Your task to perform on an android device: Search for Mexican restaurants on Maps Image 0: 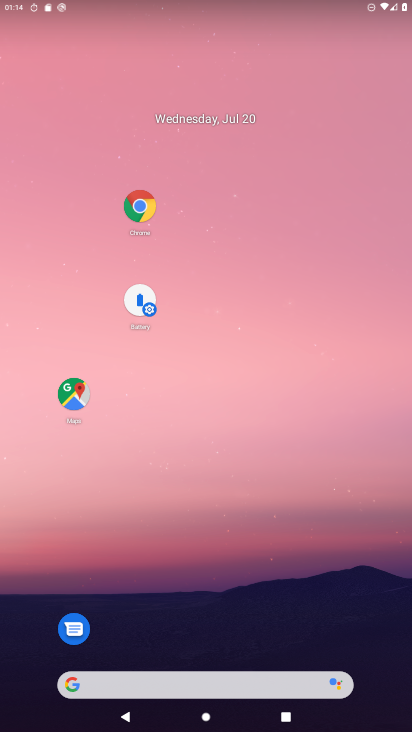
Step 0: drag from (176, 628) to (183, 312)
Your task to perform on an android device: Search for Mexican restaurants on Maps Image 1: 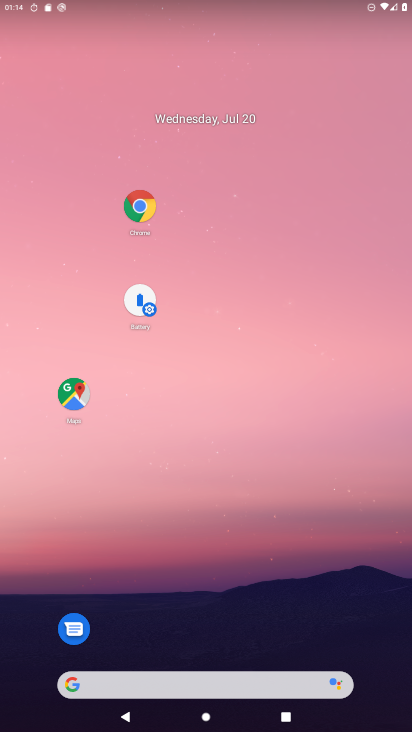
Step 1: drag from (181, 635) to (234, 255)
Your task to perform on an android device: Search for Mexican restaurants on Maps Image 2: 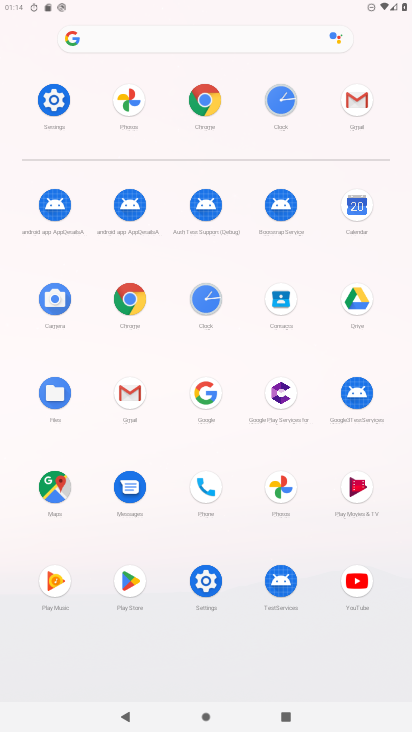
Step 2: click (41, 499)
Your task to perform on an android device: Search for Mexican restaurants on Maps Image 3: 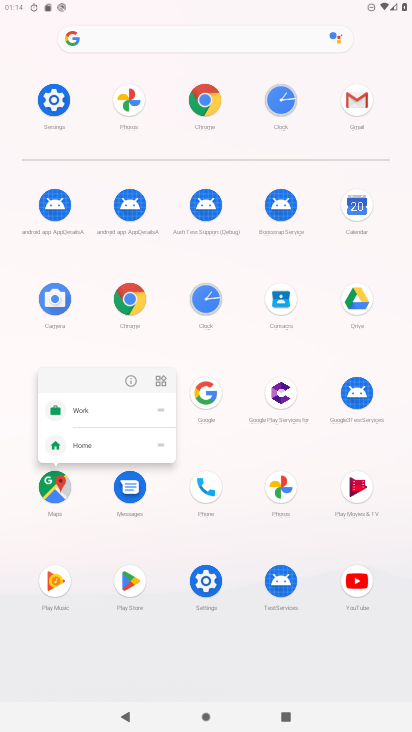
Step 3: click (129, 381)
Your task to perform on an android device: Search for Mexican restaurants on Maps Image 4: 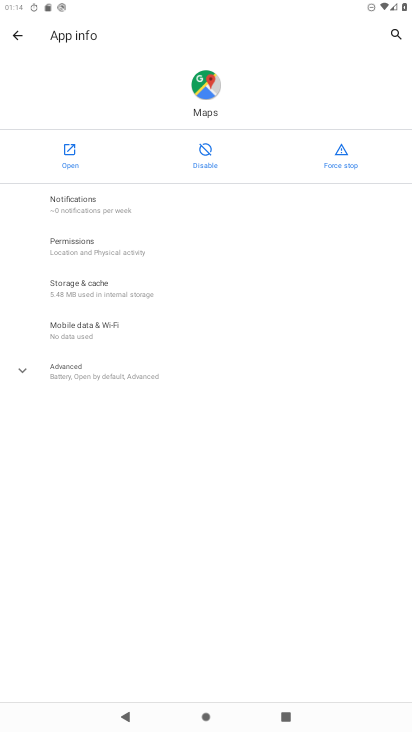
Step 4: click (72, 151)
Your task to perform on an android device: Search for Mexican restaurants on Maps Image 5: 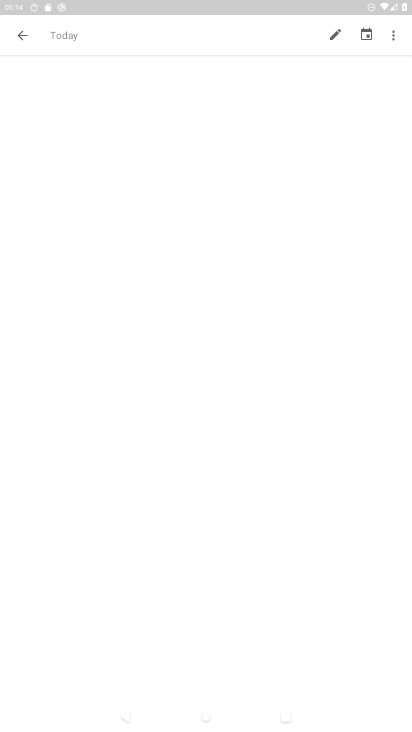
Step 5: click (19, 28)
Your task to perform on an android device: Search for Mexican restaurants on Maps Image 6: 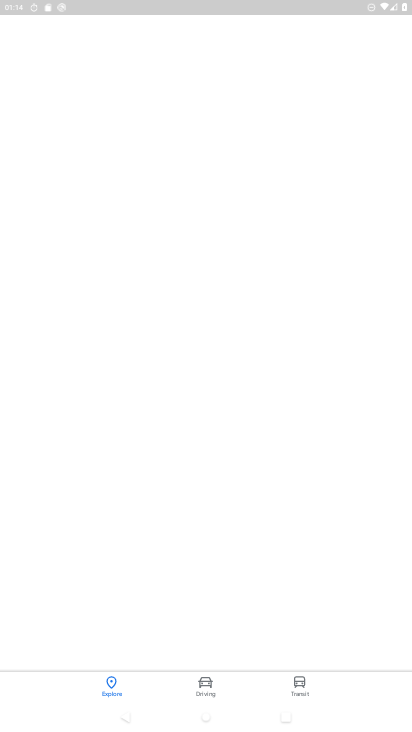
Step 6: press home button
Your task to perform on an android device: Search for Mexican restaurants on Maps Image 7: 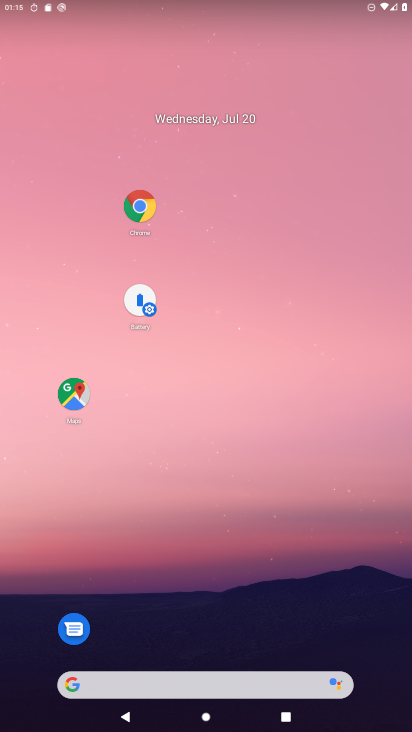
Step 7: click (78, 391)
Your task to perform on an android device: Search for Mexican restaurants on Maps Image 8: 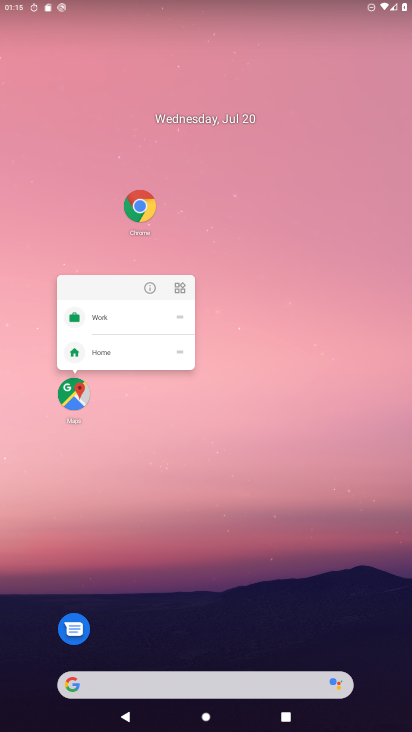
Step 8: click (143, 284)
Your task to perform on an android device: Search for Mexican restaurants on Maps Image 9: 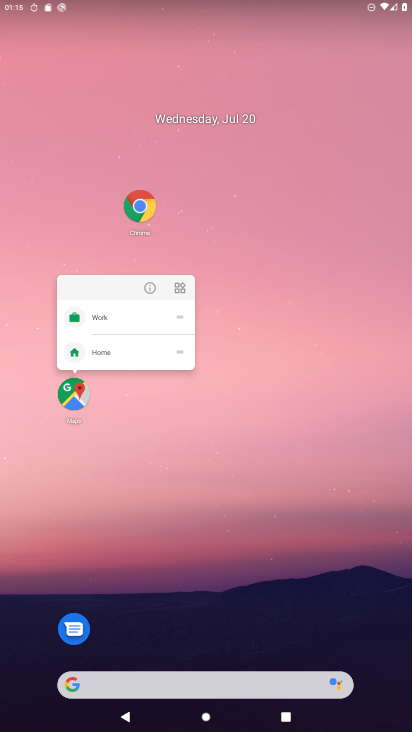
Step 9: click (143, 284)
Your task to perform on an android device: Search for Mexican restaurants on Maps Image 10: 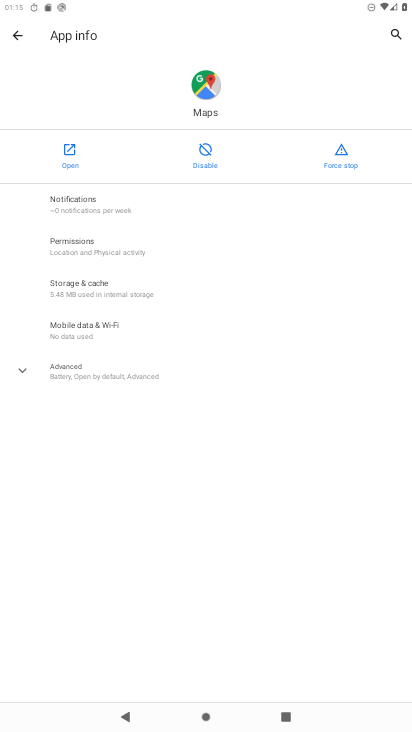
Step 10: click (69, 148)
Your task to perform on an android device: Search for Mexican restaurants on Maps Image 11: 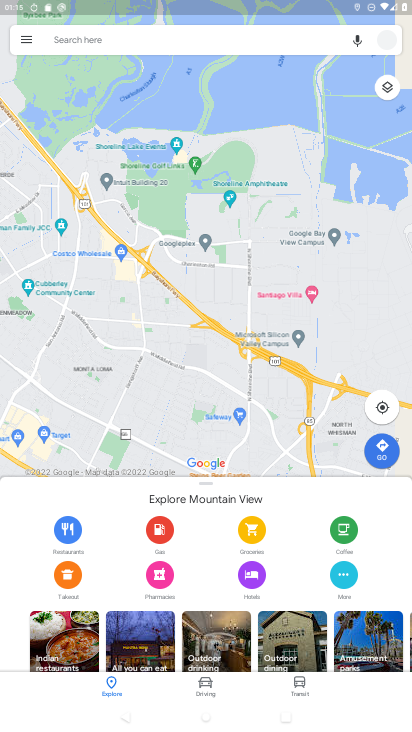
Step 11: click (72, 31)
Your task to perform on an android device: Search for Mexican restaurants on Maps Image 12: 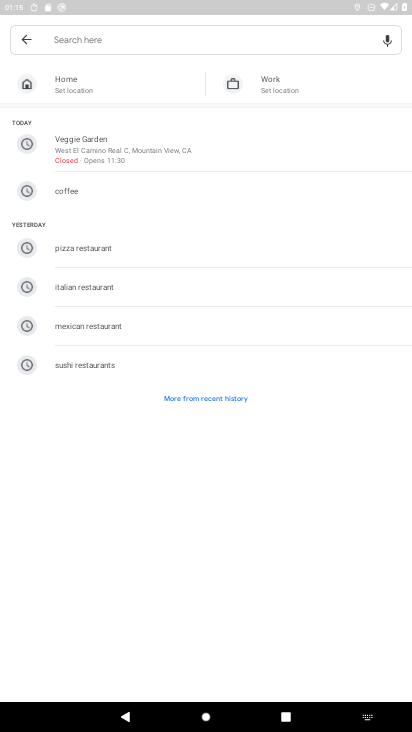
Step 12: click (67, 325)
Your task to perform on an android device: Search for Mexican restaurants on Maps Image 13: 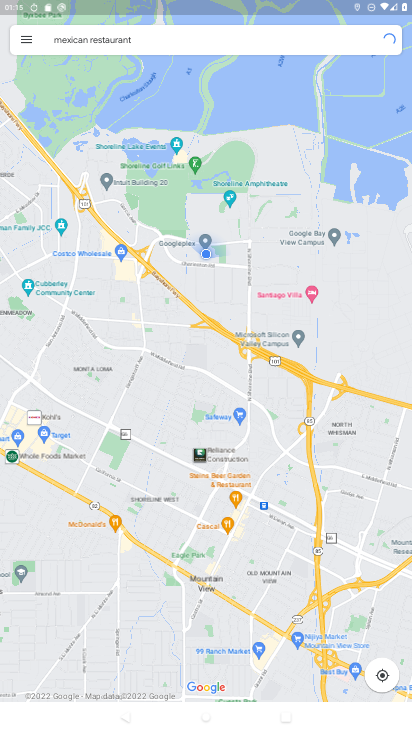
Step 13: task complete